Your task to perform on an android device: Open CNN.com Image 0: 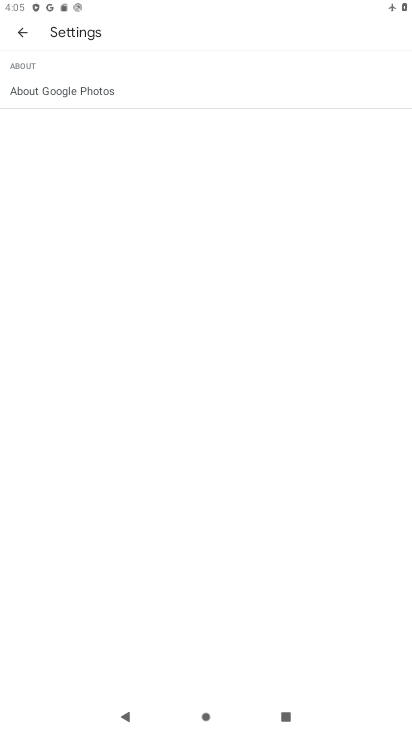
Step 0: press home button
Your task to perform on an android device: Open CNN.com Image 1: 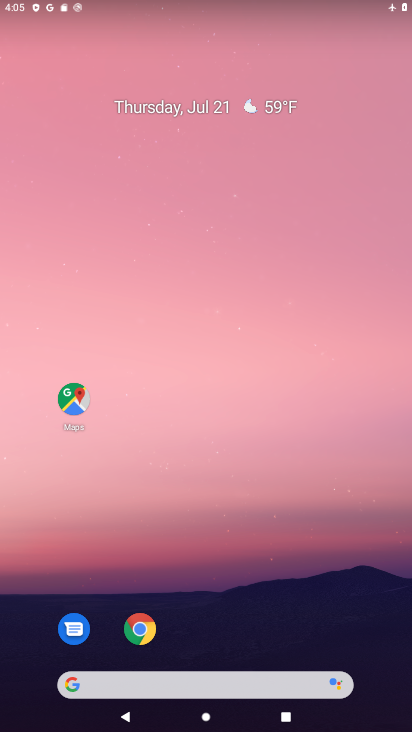
Step 1: click (141, 629)
Your task to perform on an android device: Open CNN.com Image 2: 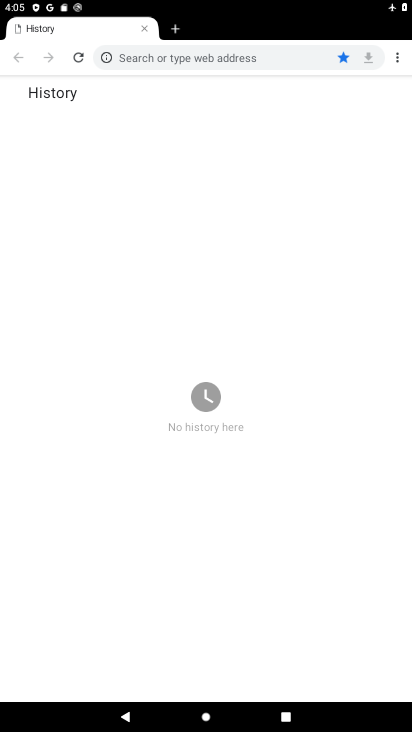
Step 2: click (395, 56)
Your task to perform on an android device: Open CNN.com Image 3: 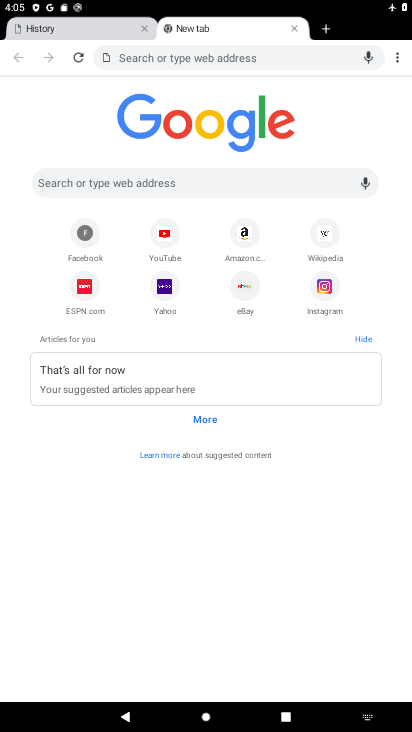
Step 3: click (211, 183)
Your task to perform on an android device: Open CNN.com Image 4: 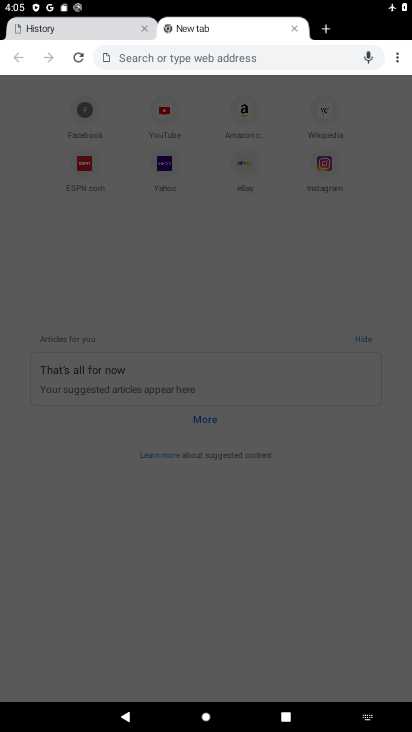
Step 4: type "cnn.com"
Your task to perform on an android device: Open CNN.com Image 5: 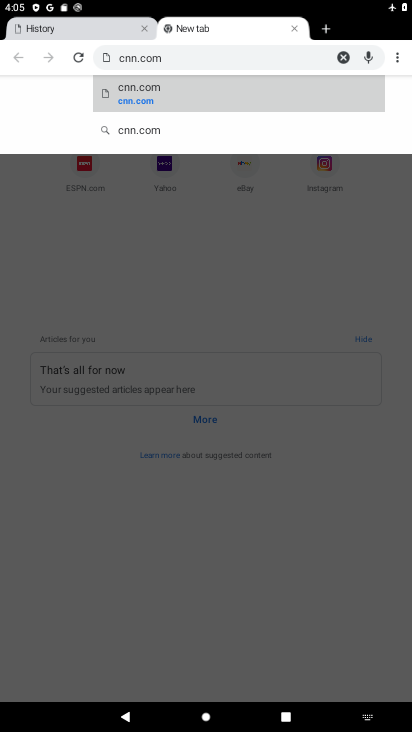
Step 5: click (161, 97)
Your task to perform on an android device: Open CNN.com Image 6: 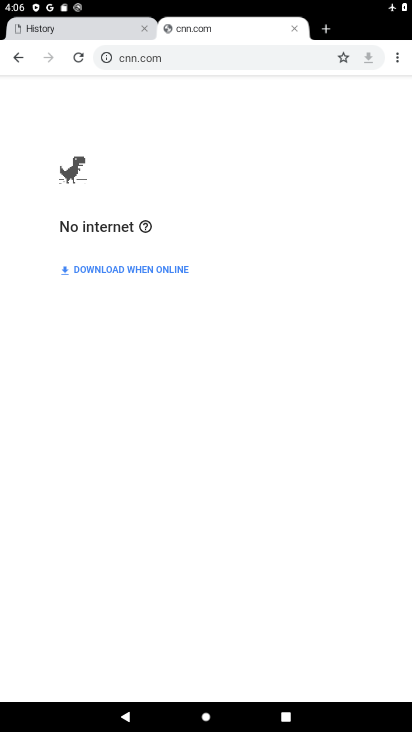
Step 6: task complete